Your task to perform on an android device: See recent photos Image 0: 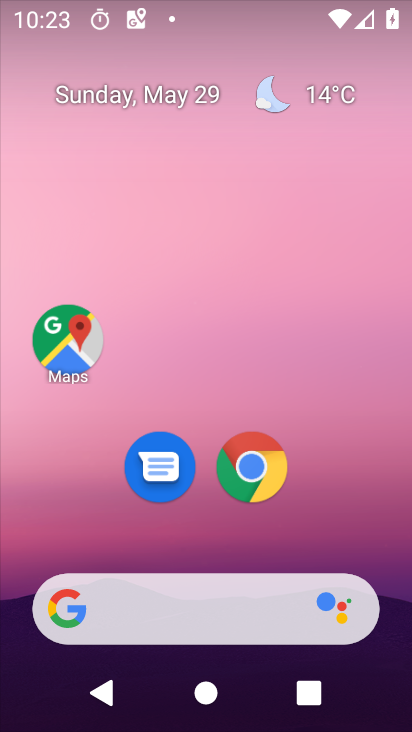
Step 0: drag from (209, 536) to (224, 169)
Your task to perform on an android device: See recent photos Image 1: 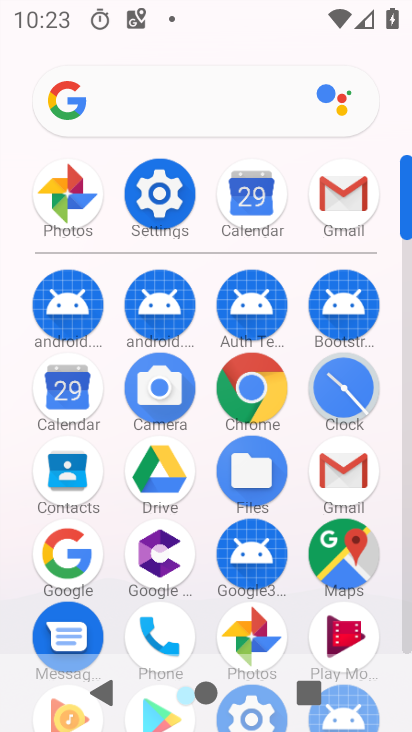
Step 1: click (258, 625)
Your task to perform on an android device: See recent photos Image 2: 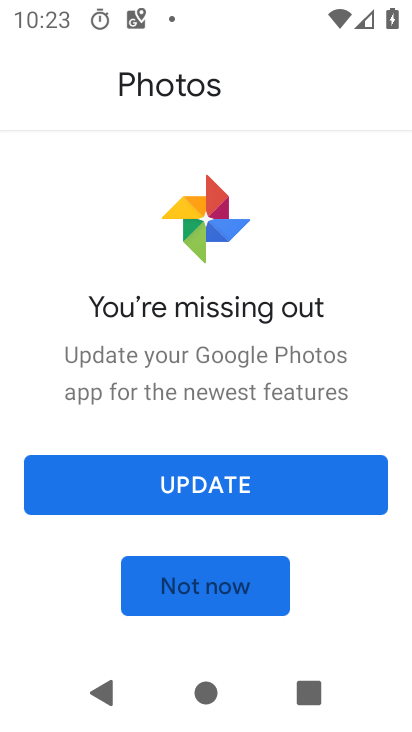
Step 2: click (210, 569)
Your task to perform on an android device: See recent photos Image 3: 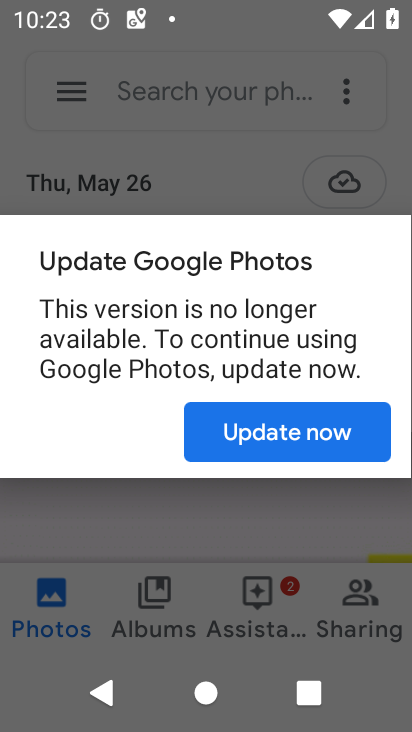
Step 3: click (247, 438)
Your task to perform on an android device: See recent photos Image 4: 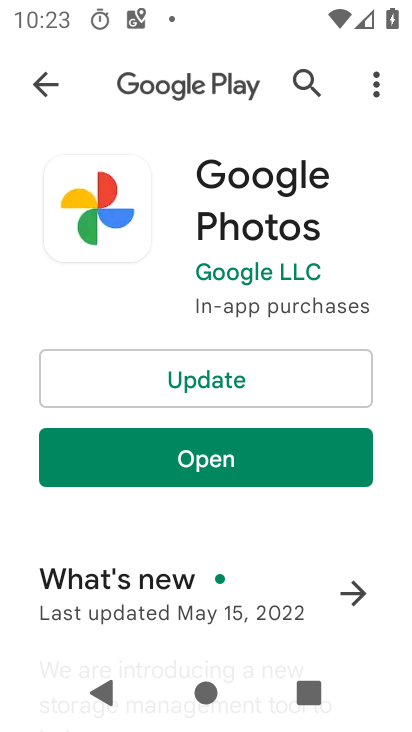
Step 4: click (224, 458)
Your task to perform on an android device: See recent photos Image 5: 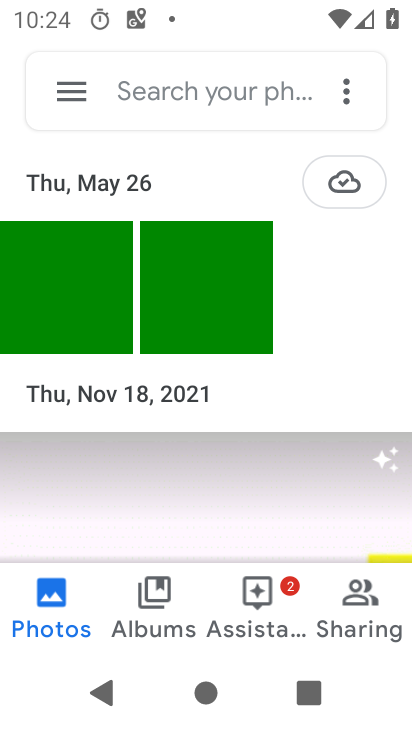
Step 5: task complete